Your task to perform on an android device: turn on priority inbox in the gmail app Image 0: 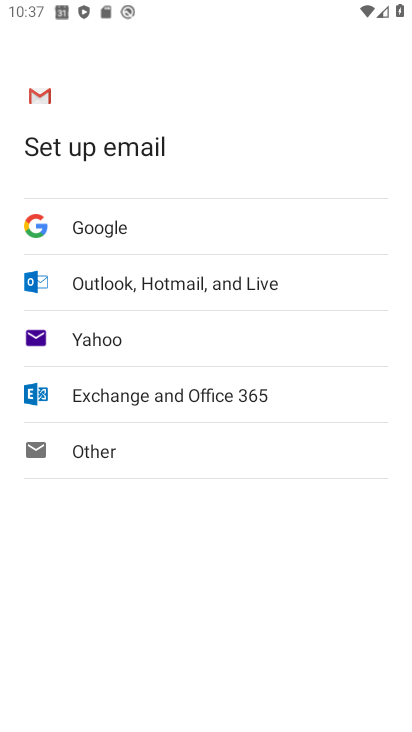
Step 0: press home button
Your task to perform on an android device: turn on priority inbox in the gmail app Image 1: 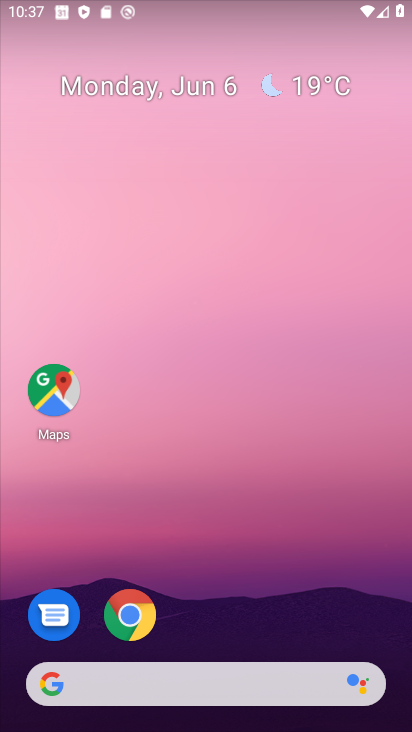
Step 1: drag from (281, 606) to (272, 74)
Your task to perform on an android device: turn on priority inbox in the gmail app Image 2: 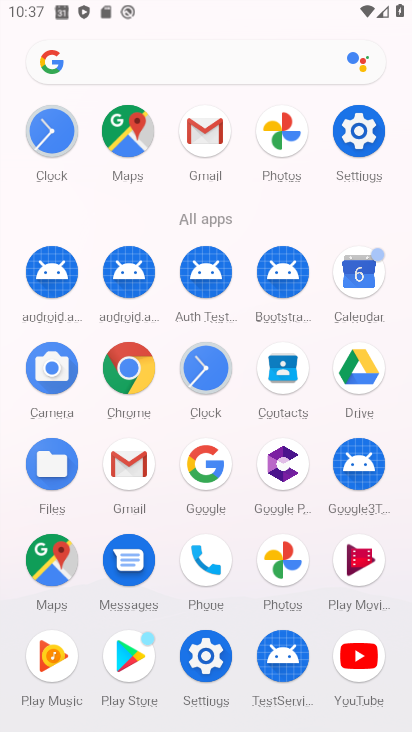
Step 2: click (219, 144)
Your task to perform on an android device: turn on priority inbox in the gmail app Image 3: 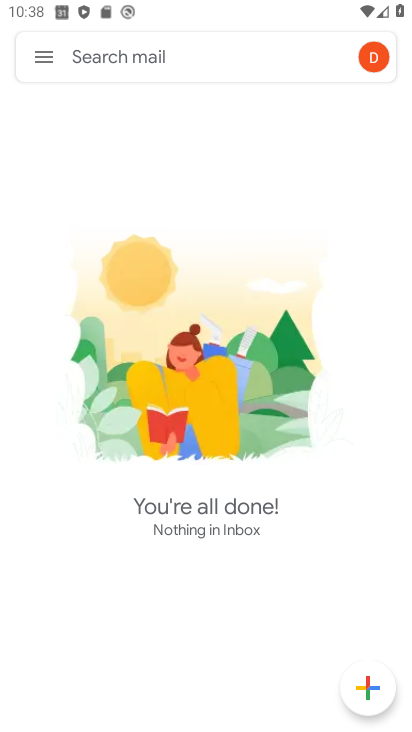
Step 3: task complete